Your task to perform on an android device: See recent photos Image 0: 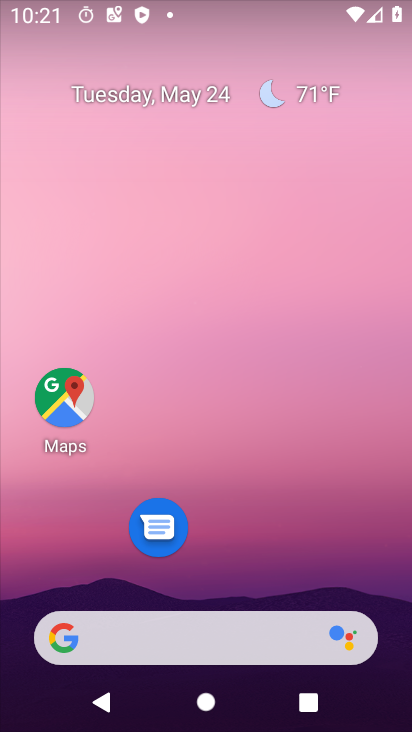
Step 0: drag from (235, 552) to (272, 35)
Your task to perform on an android device: See recent photos Image 1: 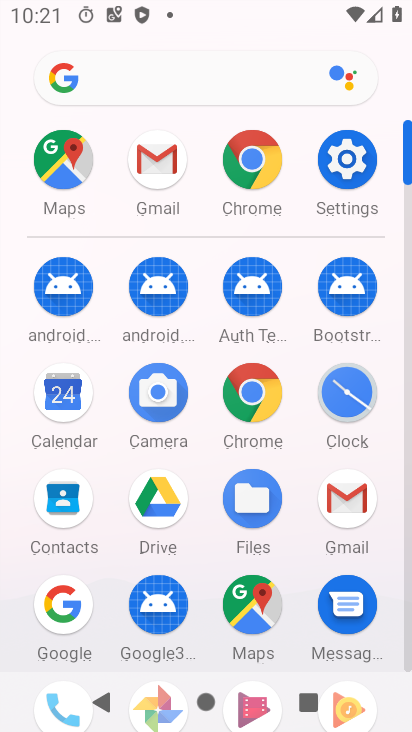
Step 1: drag from (194, 528) to (240, 84)
Your task to perform on an android device: See recent photos Image 2: 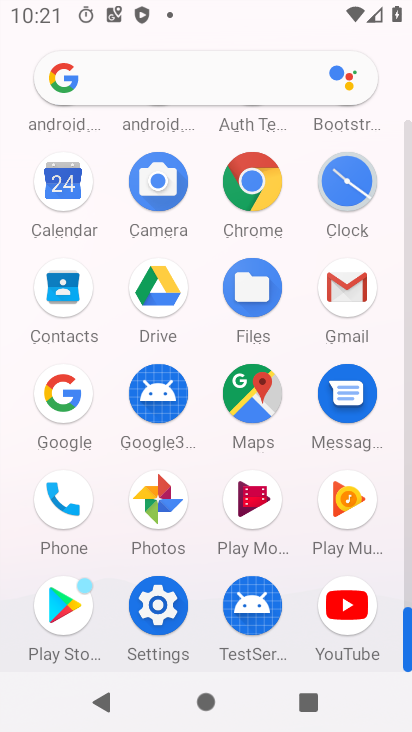
Step 2: click (156, 505)
Your task to perform on an android device: See recent photos Image 3: 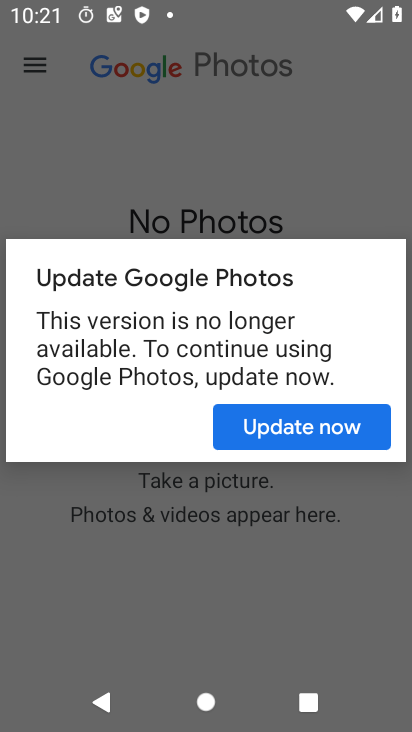
Step 3: click (272, 430)
Your task to perform on an android device: See recent photos Image 4: 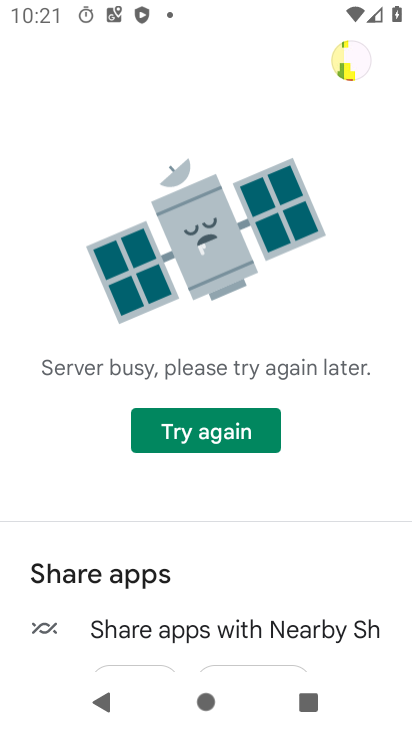
Step 4: task complete